Your task to perform on an android device: Open Google Maps Image 0: 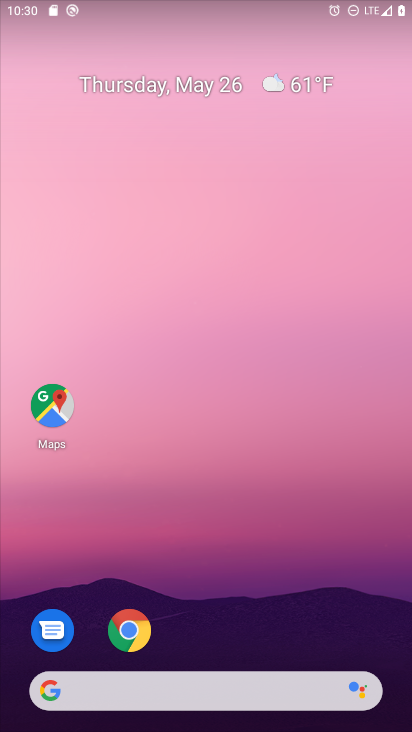
Step 0: click (33, 394)
Your task to perform on an android device: Open Google Maps Image 1: 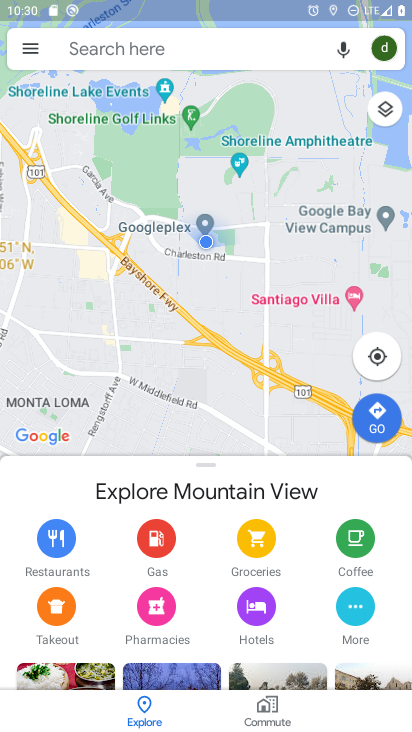
Step 1: task complete